Your task to perform on an android device: Look up the best rated headphones on Aliexpress Image 0: 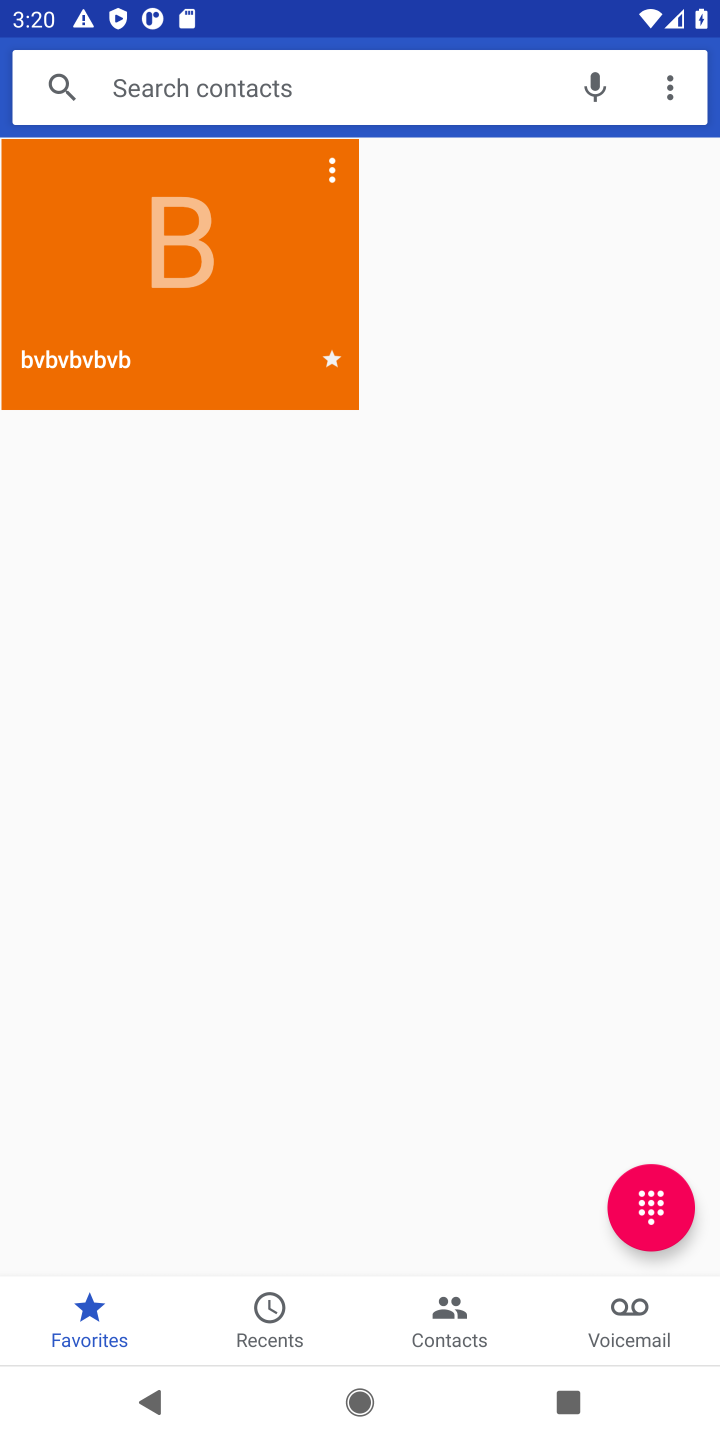
Step 0: press home button
Your task to perform on an android device: Look up the best rated headphones on Aliexpress Image 1: 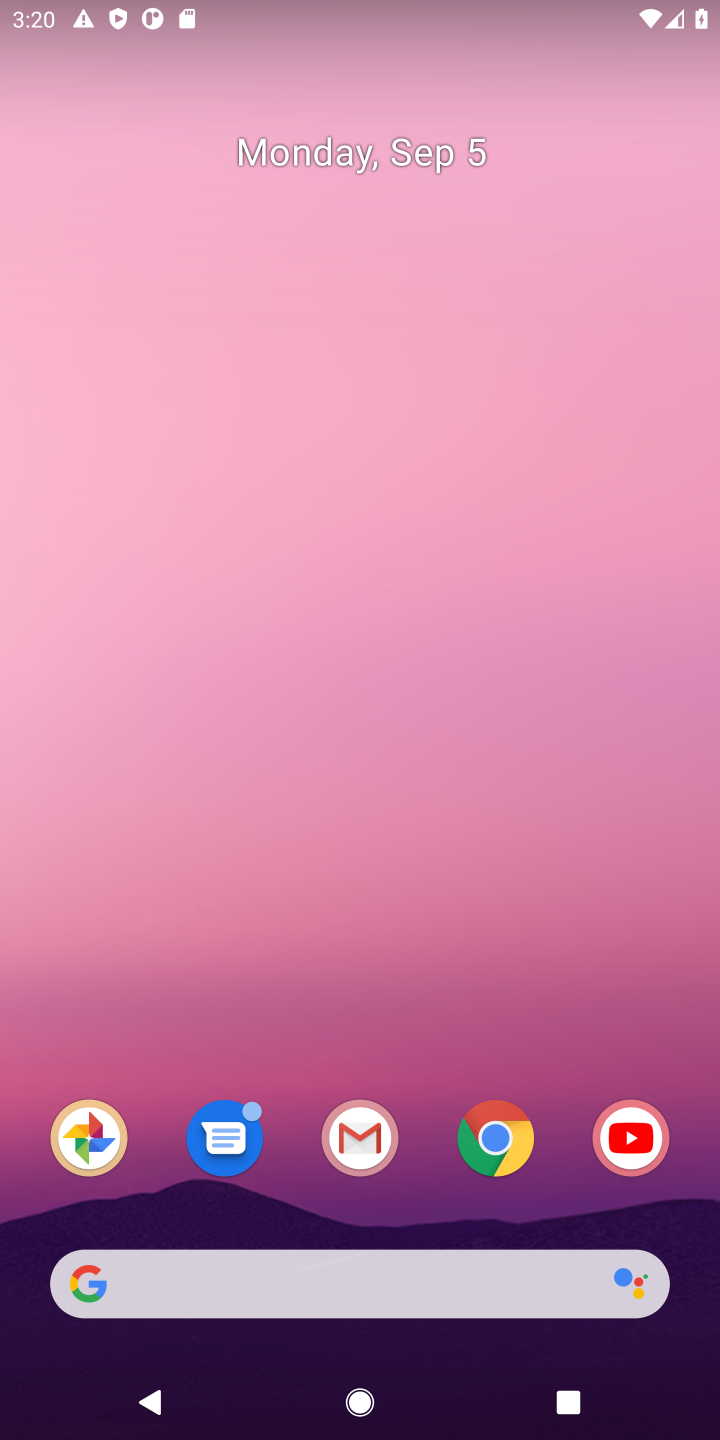
Step 1: click (498, 1136)
Your task to perform on an android device: Look up the best rated headphones on Aliexpress Image 2: 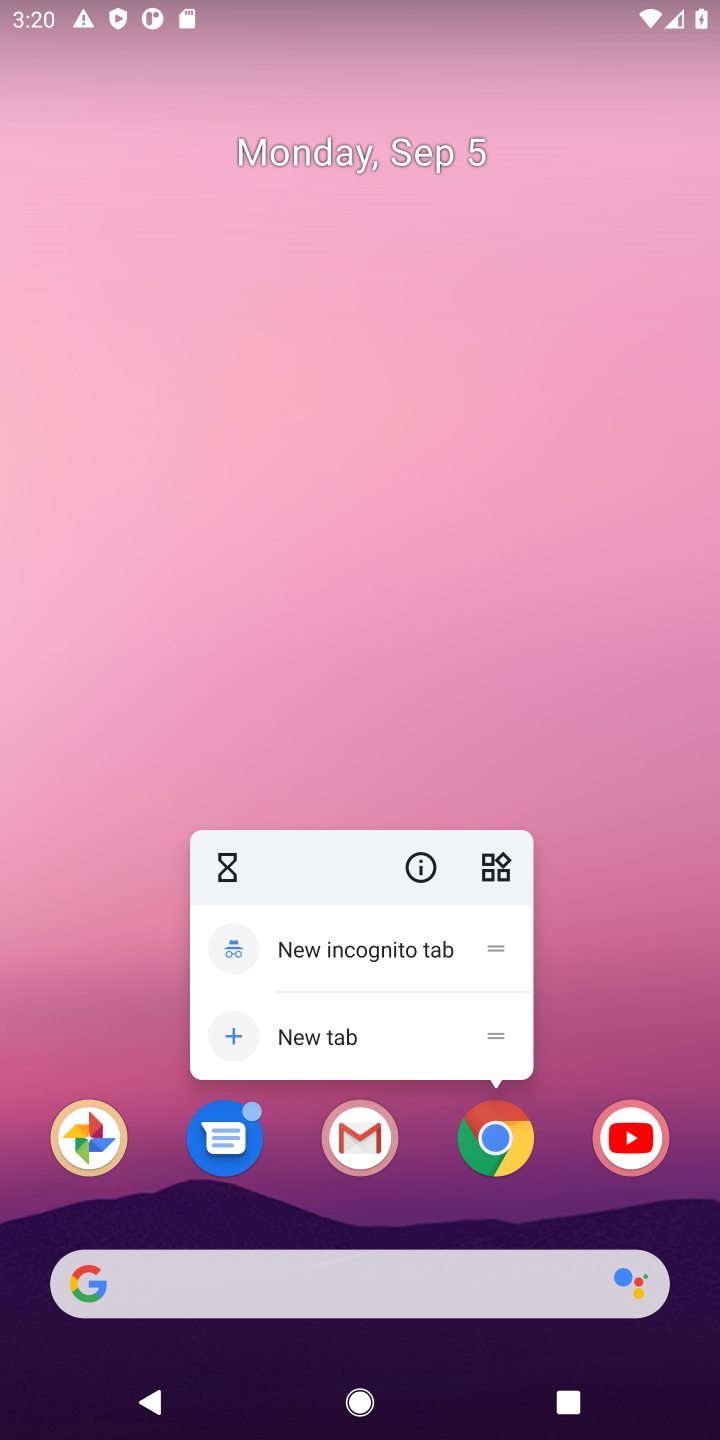
Step 2: click (498, 1136)
Your task to perform on an android device: Look up the best rated headphones on Aliexpress Image 3: 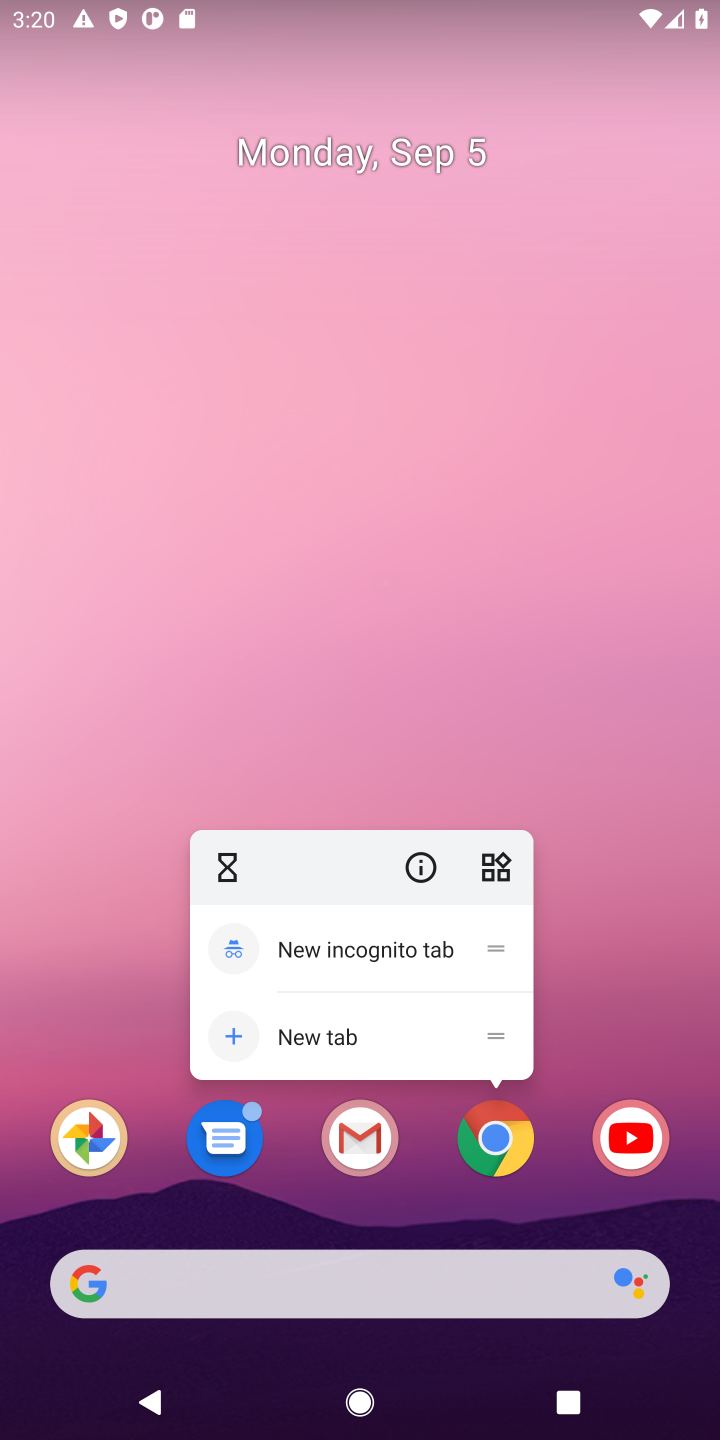
Step 3: click (498, 1136)
Your task to perform on an android device: Look up the best rated headphones on Aliexpress Image 4: 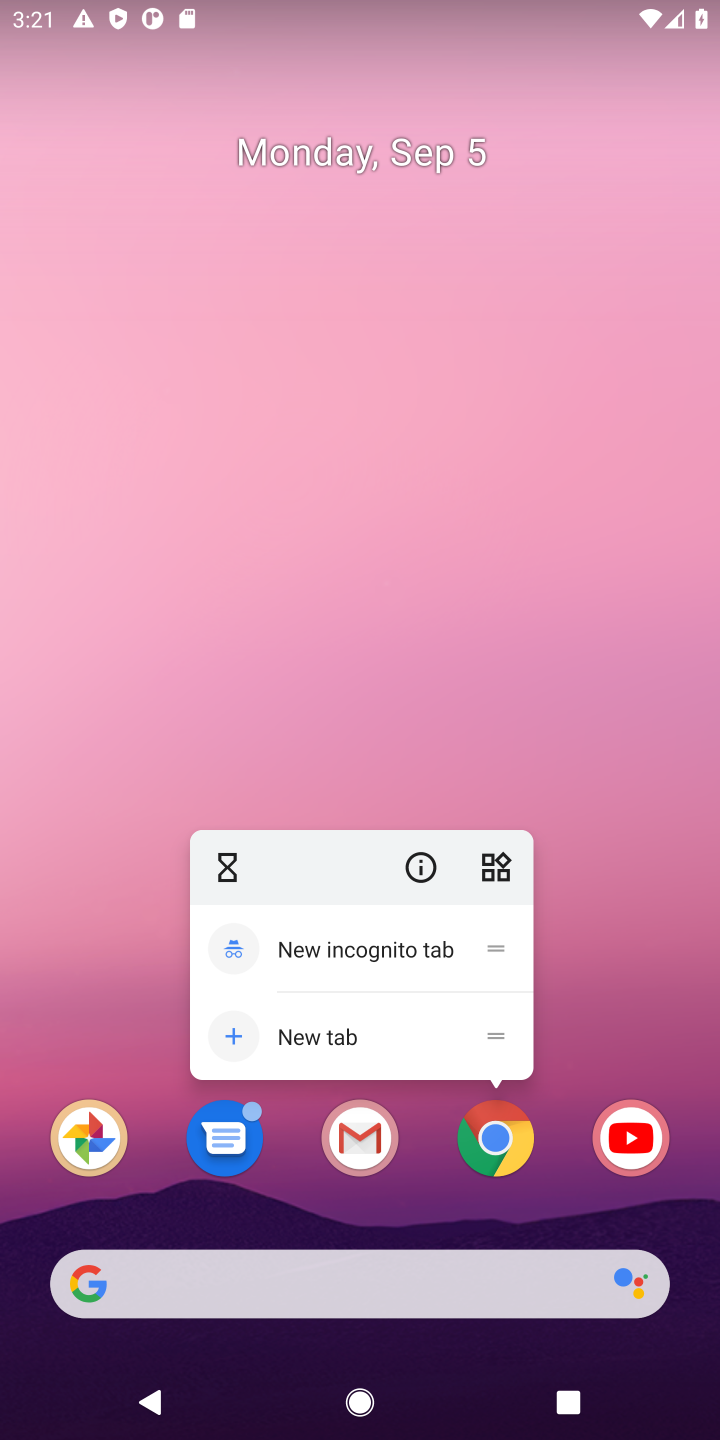
Step 4: click (496, 1146)
Your task to perform on an android device: Look up the best rated headphones on Aliexpress Image 5: 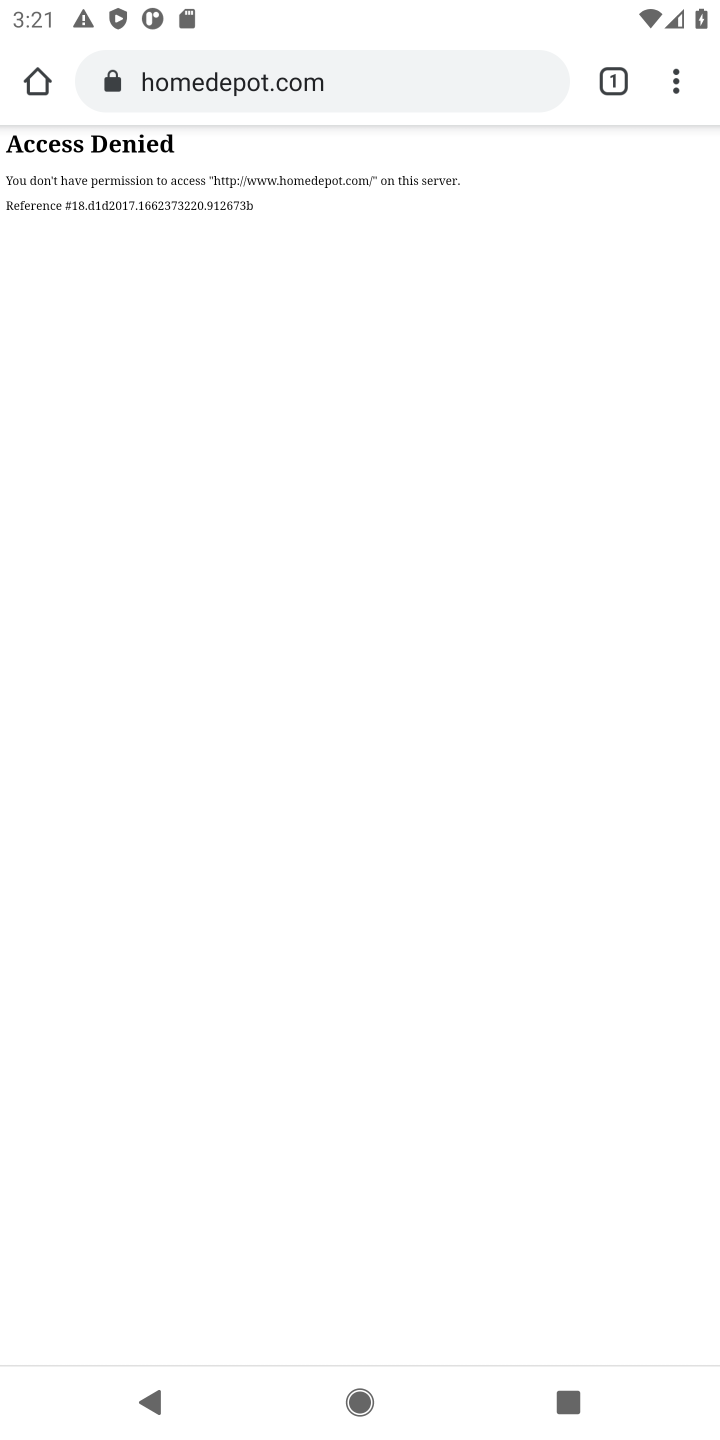
Step 5: click (294, 75)
Your task to perform on an android device: Look up the best rated headphones on Aliexpress Image 6: 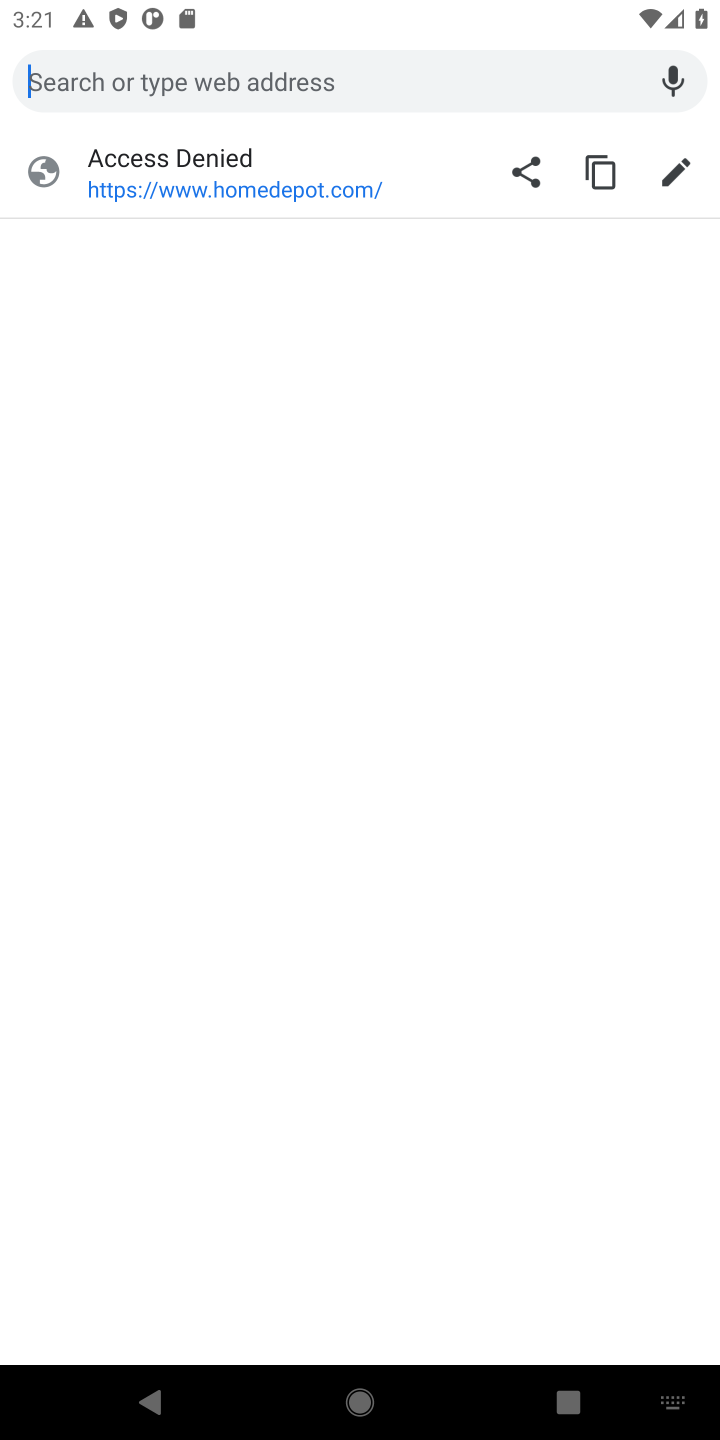
Step 6: type "Aliexpress"
Your task to perform on an android device: Look up the best rated headphones on Aliexpress Image 7: 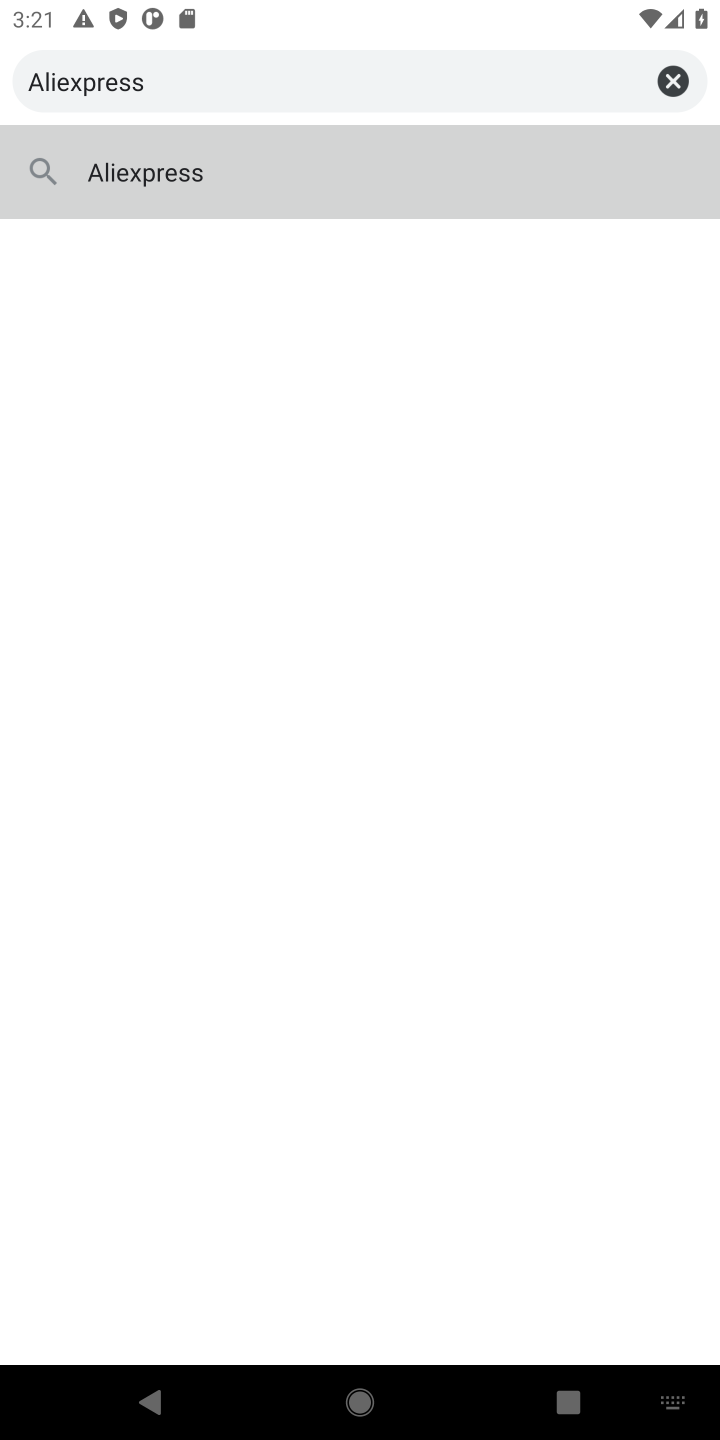
Step 7: click (292, 200)
Your task to perform on an android device: Look up the best rated headphones on Aliexpress Image 8: 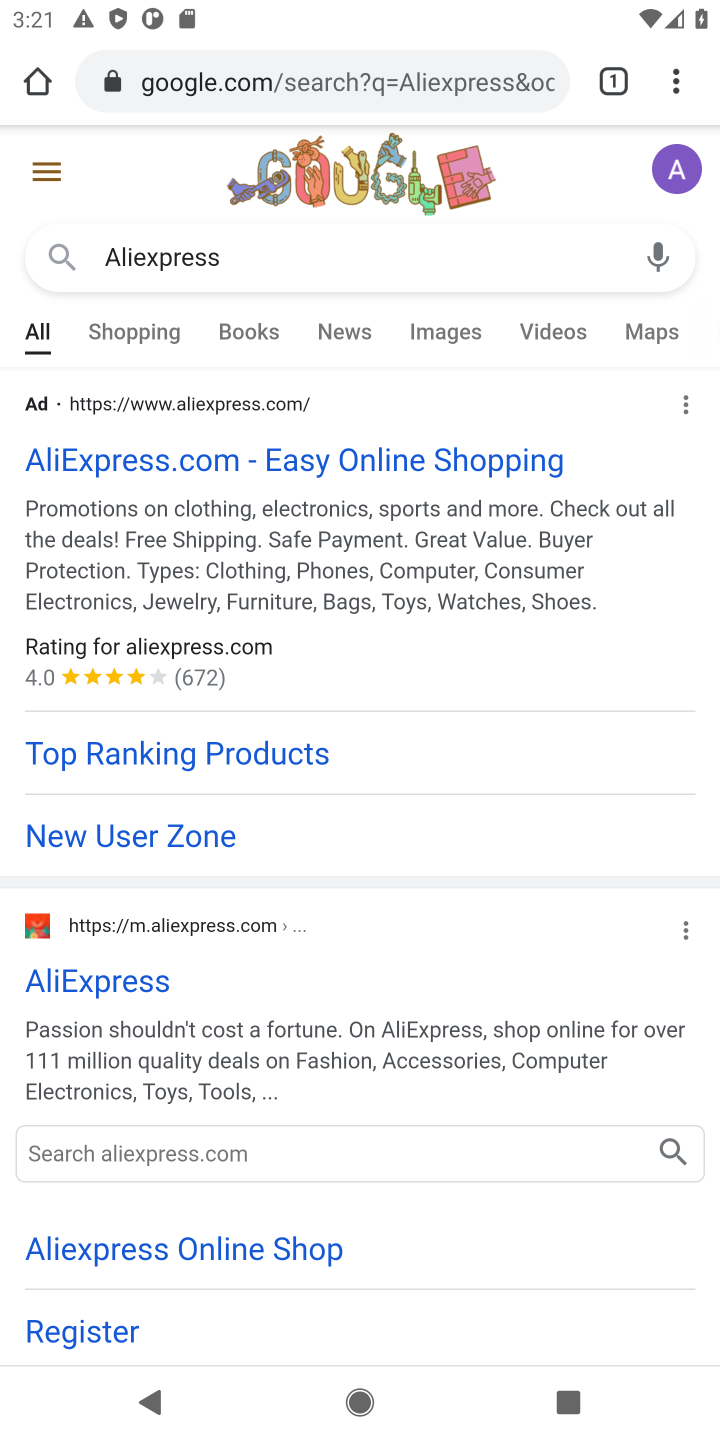
Step 8: click (176, 1002)
Your task to perform on an android device: Look up the best rated headphones on Aliexpress Image 9: 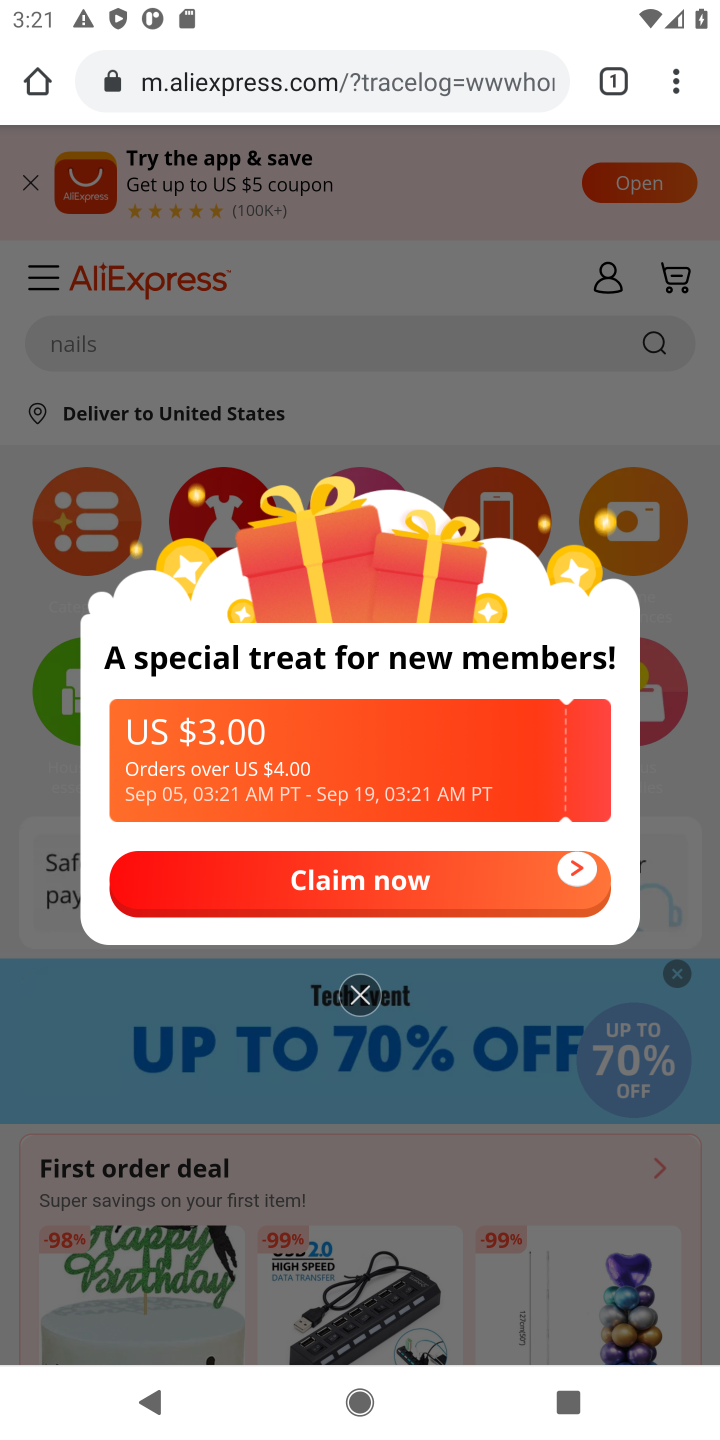
Step 9: click (363, 995)
Your task to perform on an android device: Look up the best rated headphones on Aliexpress Image 10: 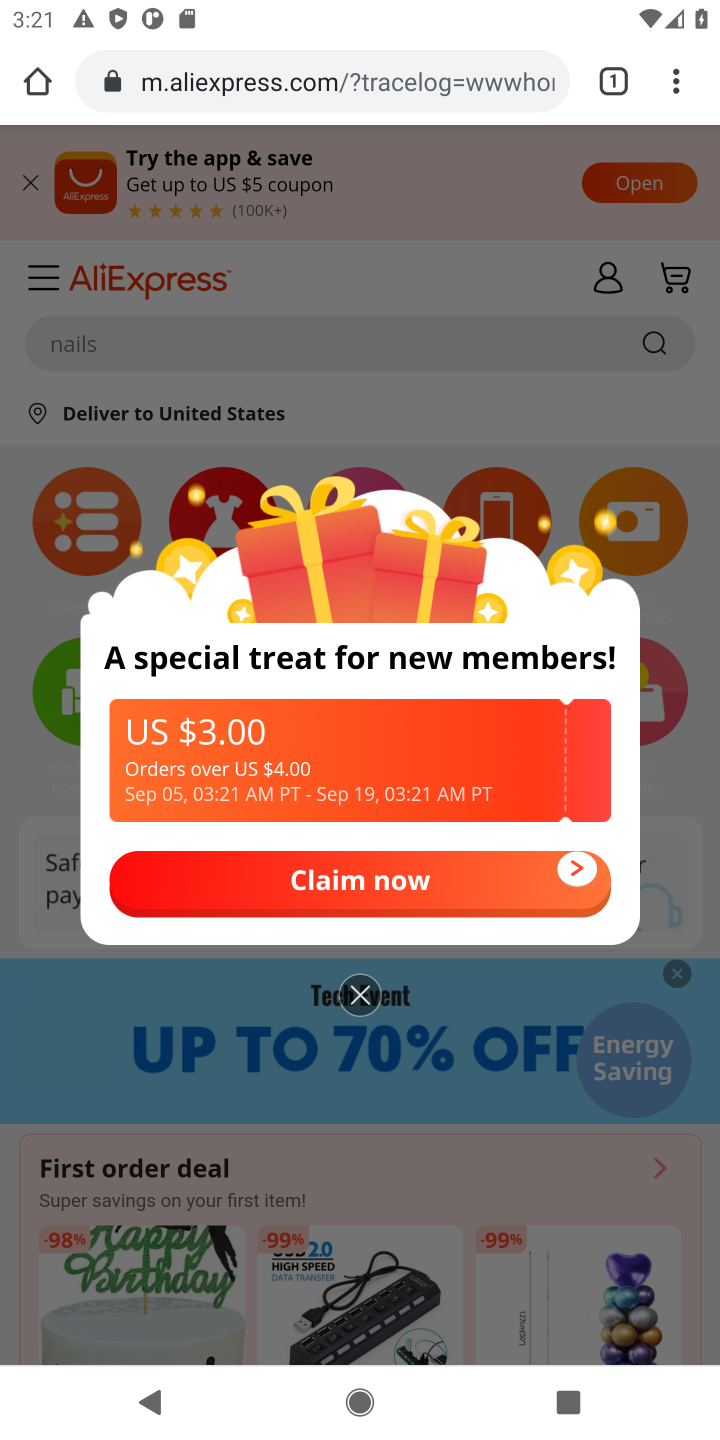
Step 10: click (364, 995)
Your task to perform on an android device: Look up the best rated headphones on Aliexpress Image 11: 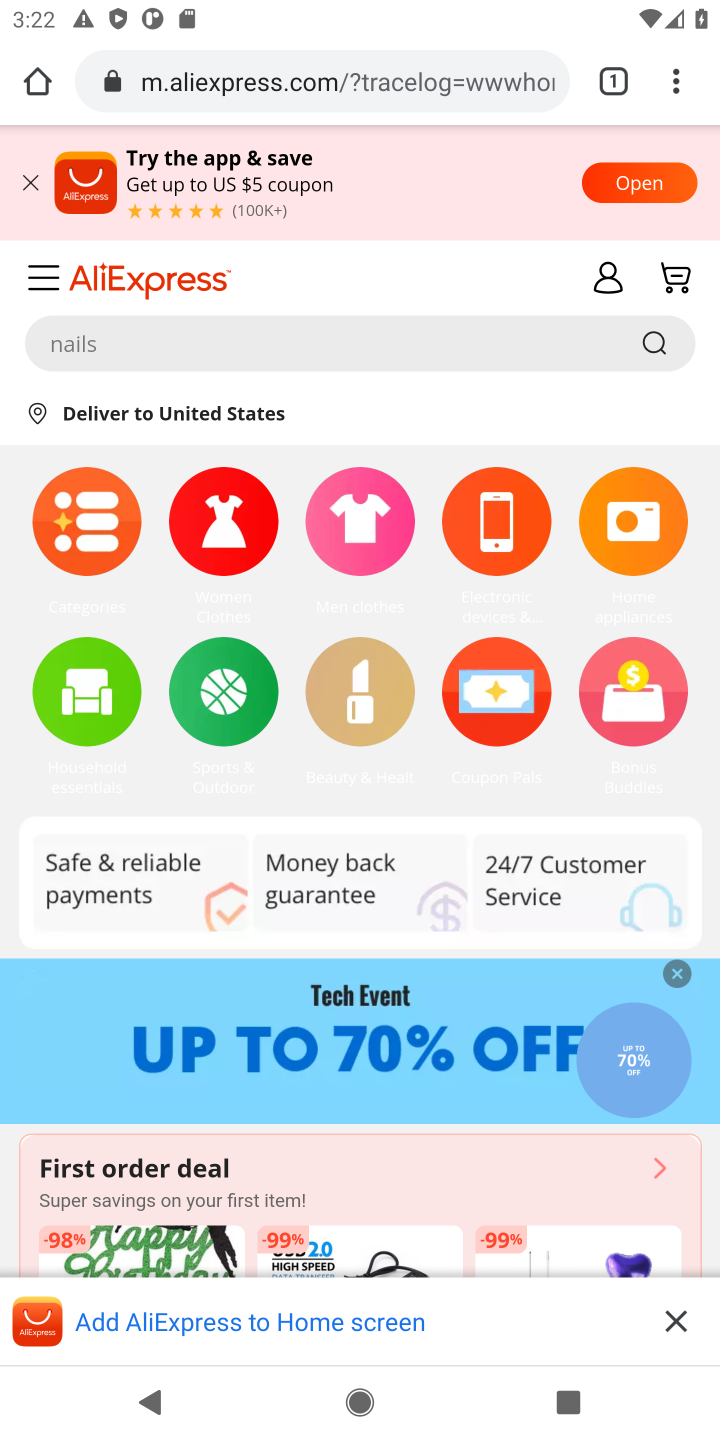
Step 11: click (384, 351)
Your task to perform on an android device: Look up the best rated headphones on Aliexpress Image 12: 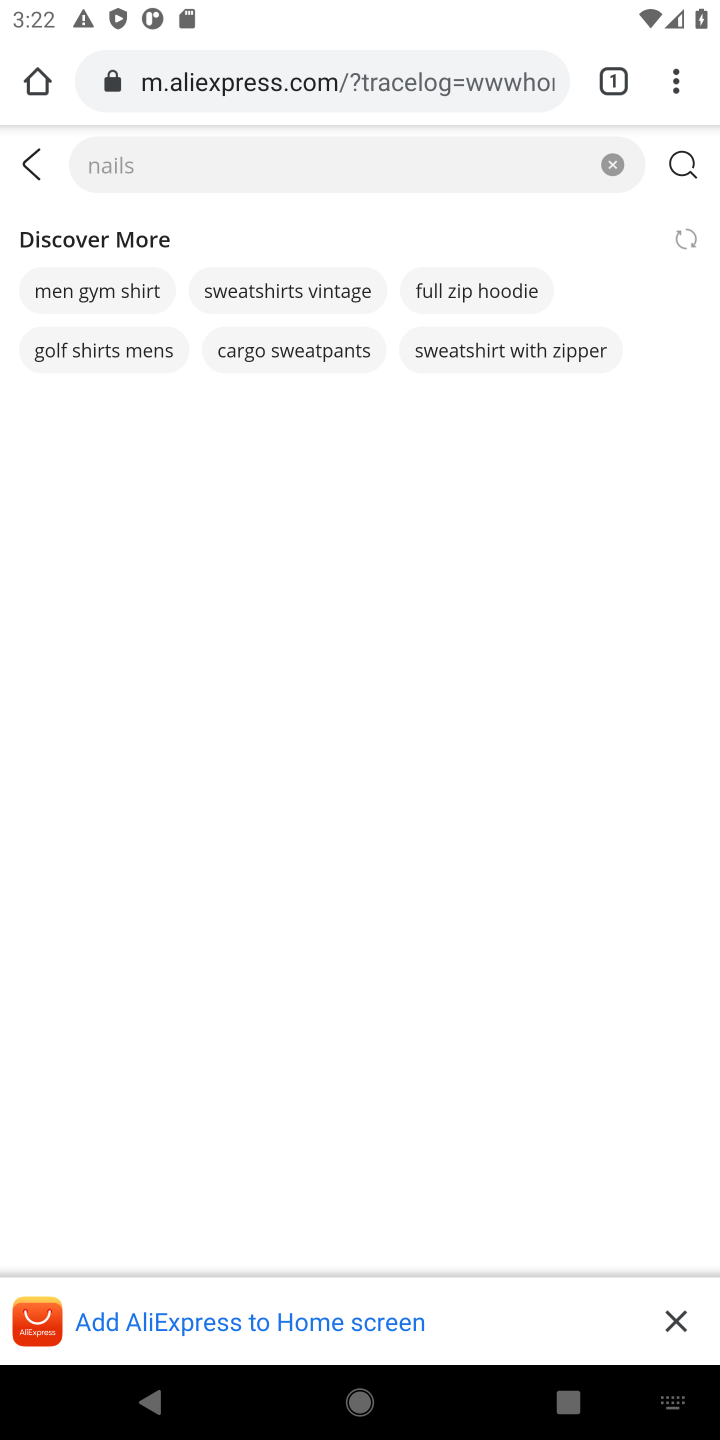
Step 12: type "best rated headphones"
Your task to perform on an android device: Look up the best rated headphones on Aliexpress Image 13: 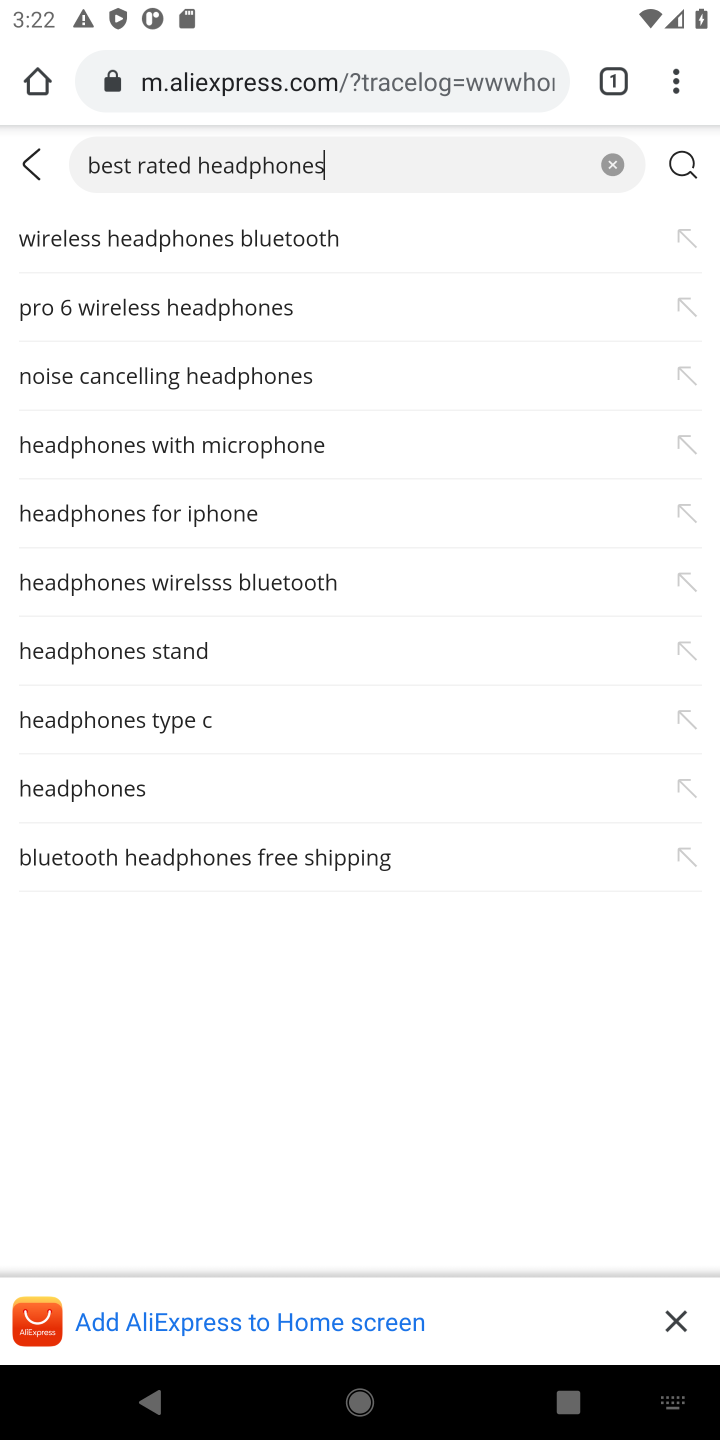
Step 13: click (678, 169)
Your task to perform on an android device: Look up the best rated headphones on Aliexpress Image 14: 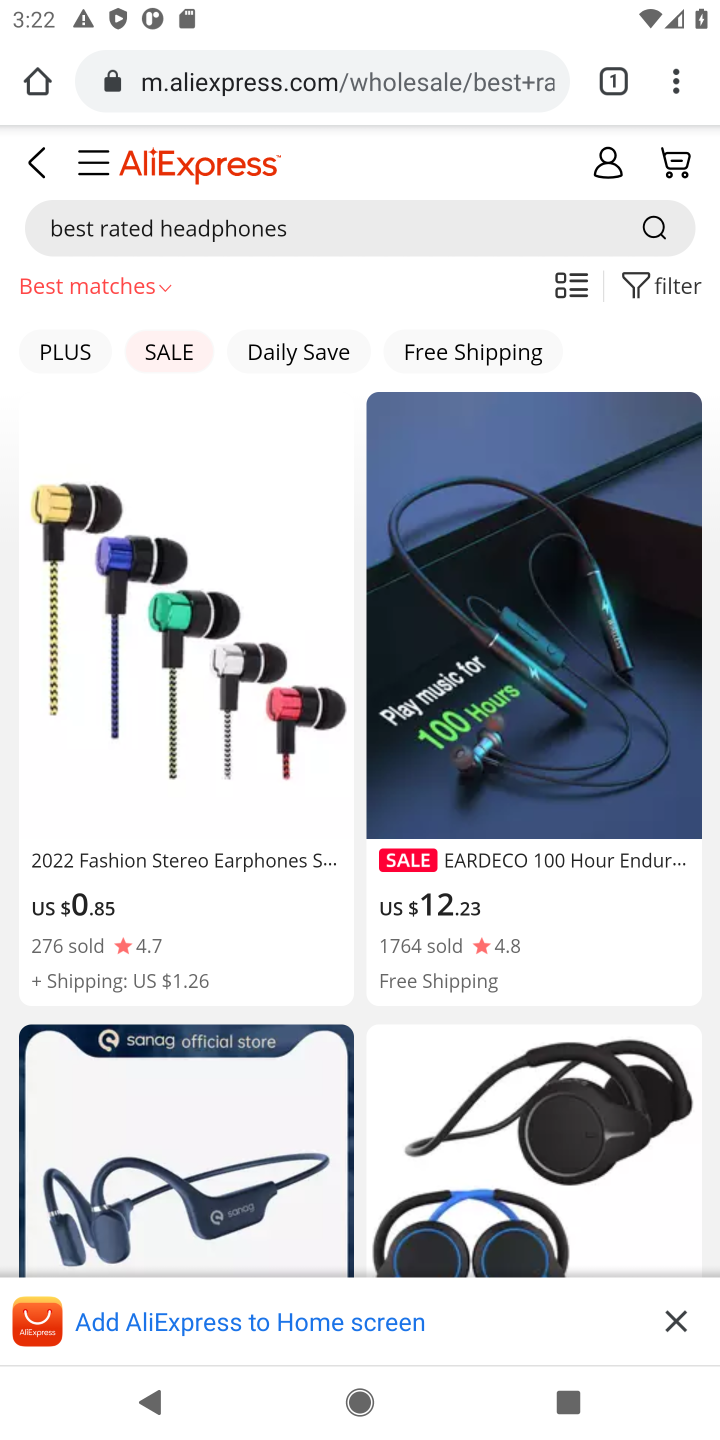
Step 14: task complete